Your task to perform on an android device: Search for Italian restaurants on Maps Image 0: 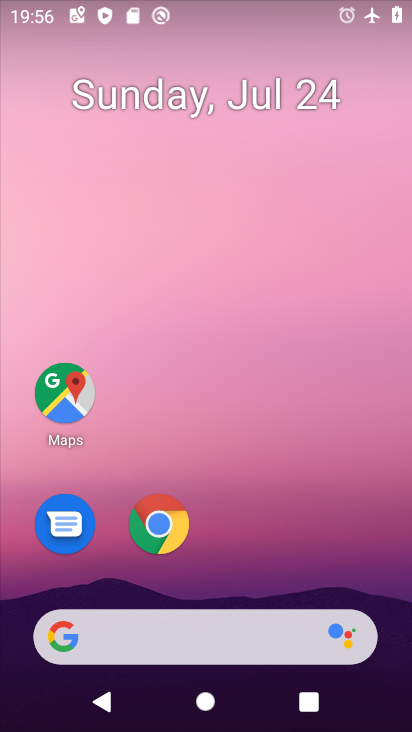
Step 0: drag from (293, 565) to (255, 101)
Your task to perform on an android device: Search for Italian restaurants on Maps Image 1: 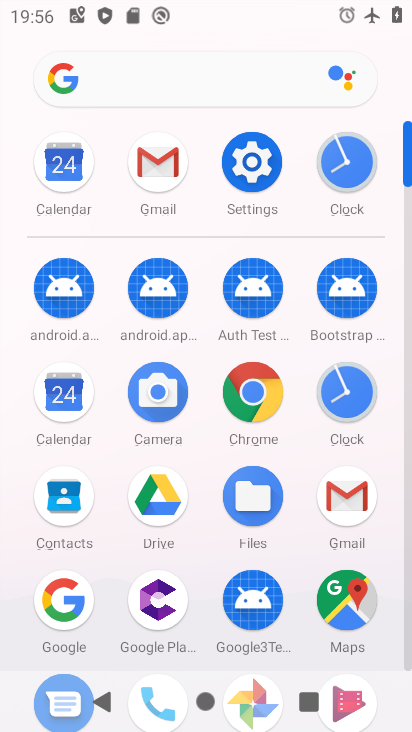
Step 1: click (336, 592)
Your task to perform on an android device: Search for Italian restaurants on Maps Image 2: 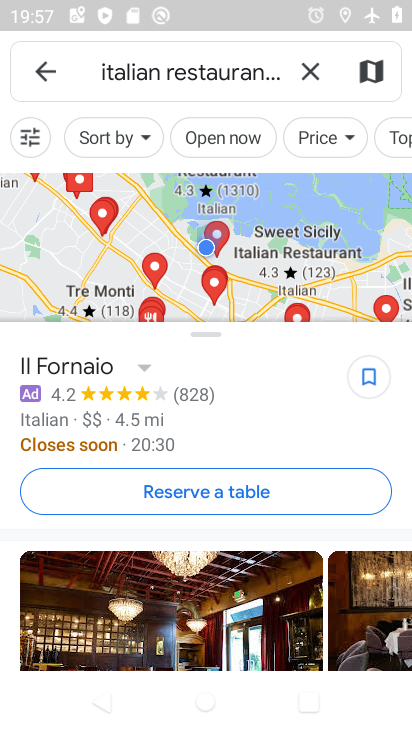
Step 2: click (310, 64)
Your task to perform on an android device: Search for Italian restaurants on Maps Image 3: 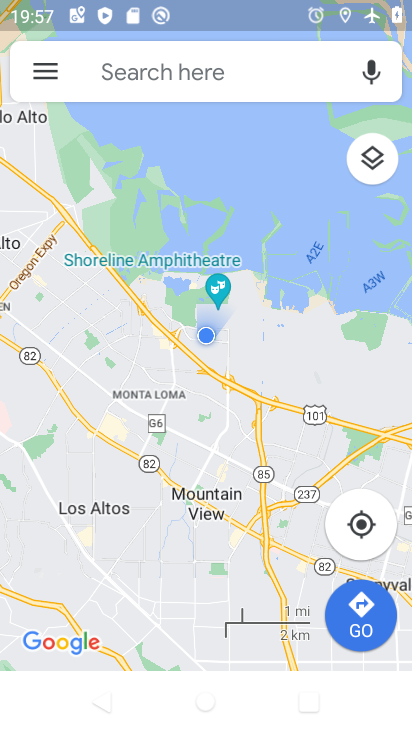
Step 3: click (277, 82)
Your task to perform on an android device: Search for Italian restaurants on Maps Image 4: 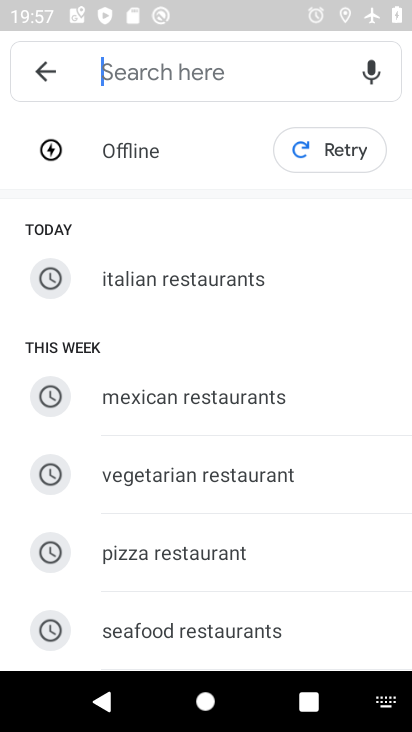
Step 4: click (236, 279)
Your task to perform on an android device: Search for Italian restaurants on Maps Image 5: 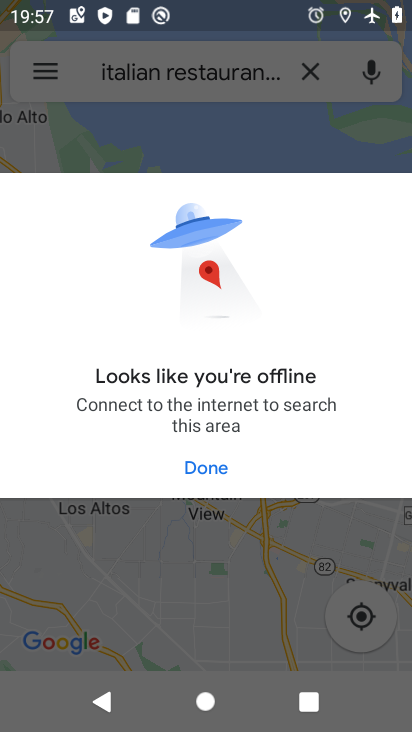
Step 5: task complete